Your task to perform on an android device: open a bookmark in the chrome app Image 0: 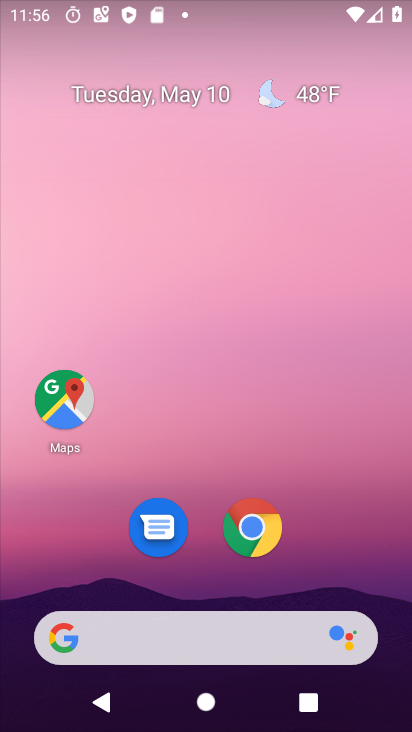
Step 0: click (247, 527)
Your task to perform on an android device: open a bookmark in the chrome app Image 1: 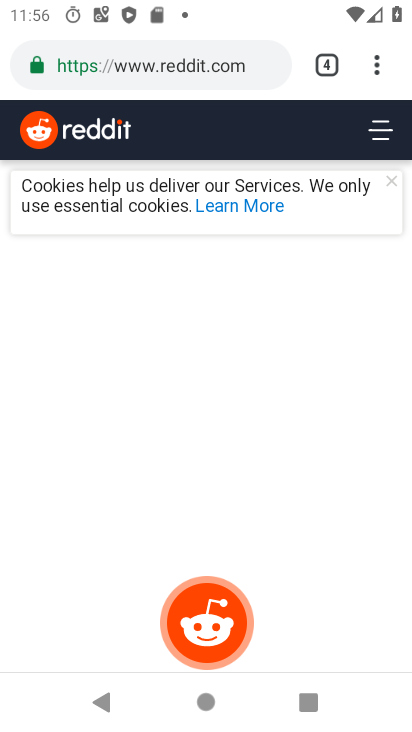
Step 1: click (375, 69)
Your task to perform on an android device: open a bookmark in the chrome app Image 2: 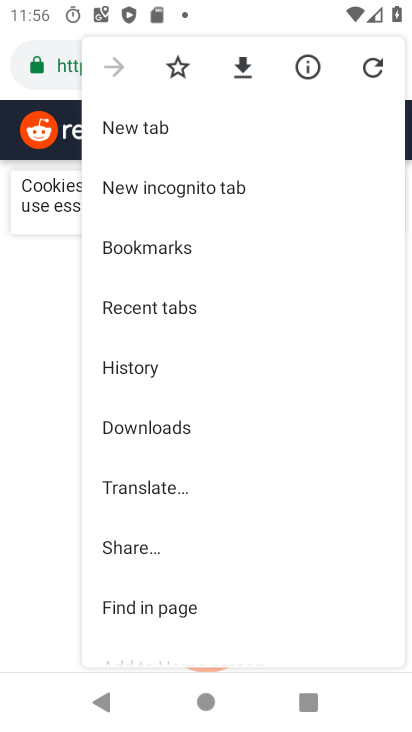
Step 2: click (166, 243)
Your task to perform on an android device: open a bookmark in the chrome app Image 3: 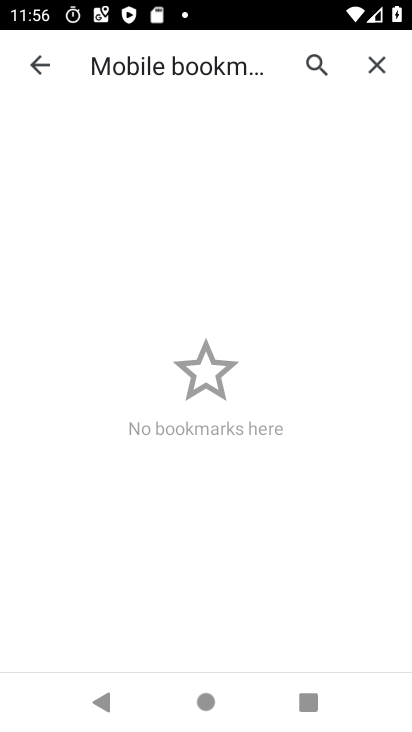
Step 3: task complete